Your task to perform on an android device: empty trash in google photos Image 0: 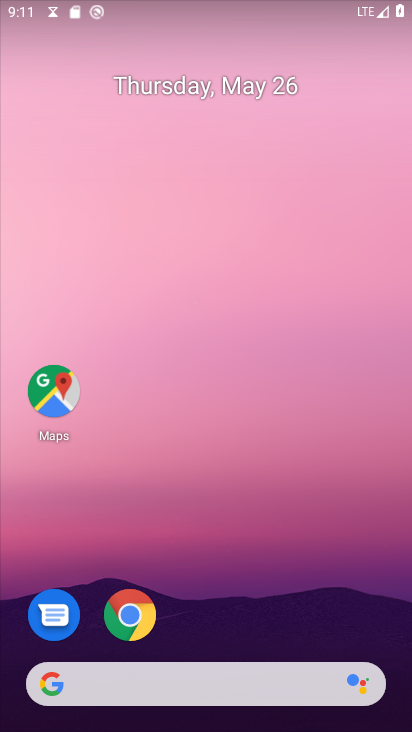
Step 0: drag from (242, 616) to (286, 142)
Your task to perform on an android device: empty trash in google photos Image 1: 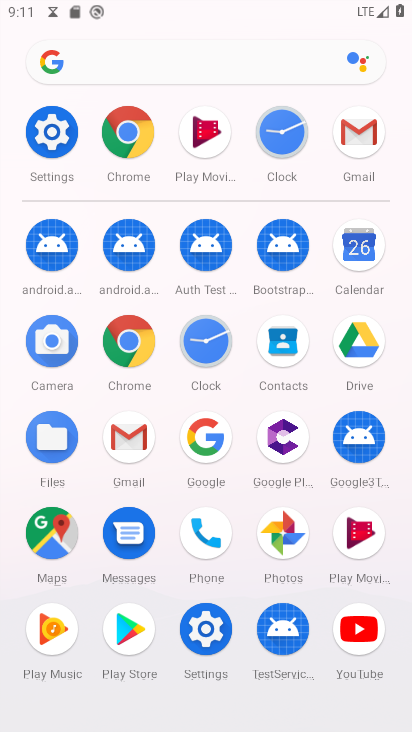
Step 1: click (281, 523)
Your task to perform on an android device: empty trash in google photos Image 2: 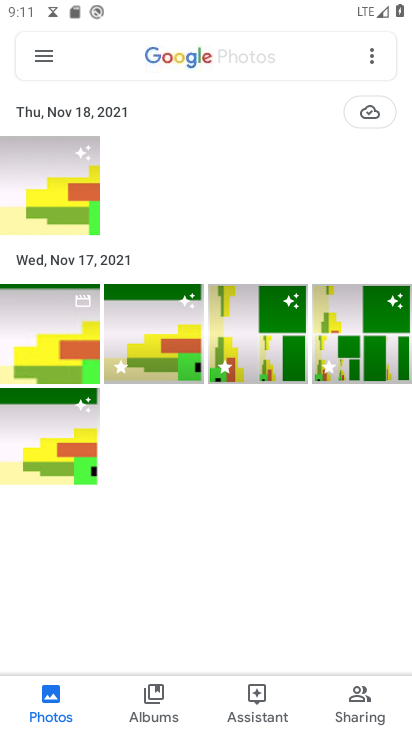
Step 2: click (39, 64)
Your task to perform on an android device: empty trash in google photos Image 3: 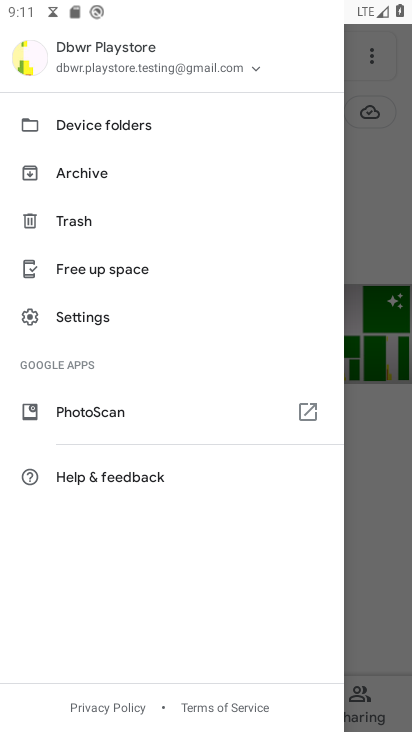
Step 3: click (46, 51)
Your task to perform on an android device: empty trash in google photos Image 4: 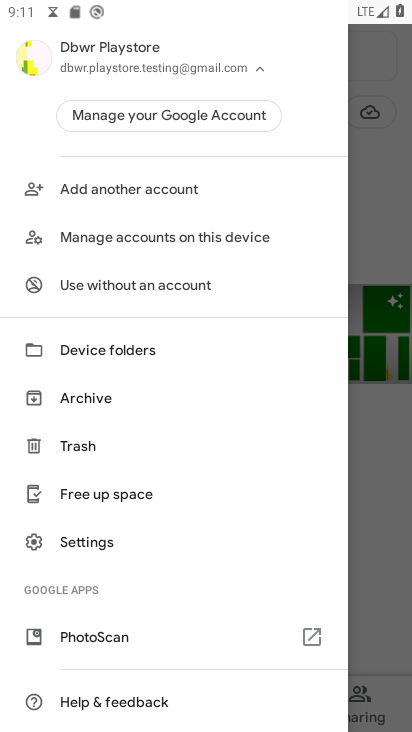
Step 4: click (111, 444)
Your task to perform on an android device: empty trash in google photos Image 5: 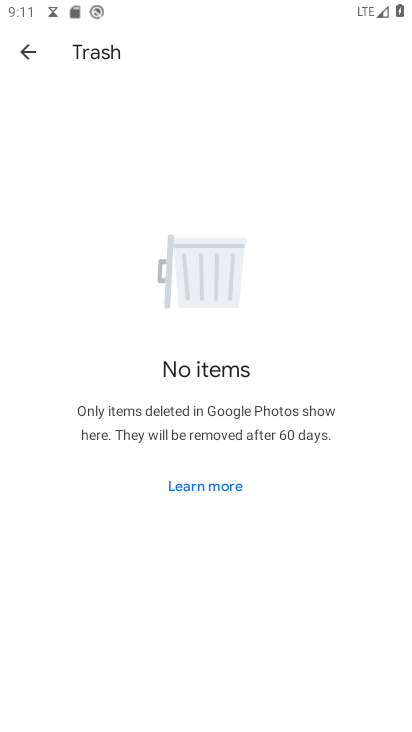
Step 5: task complete